Your task to perform on an android device: What is the capital of Spain? Image 0: 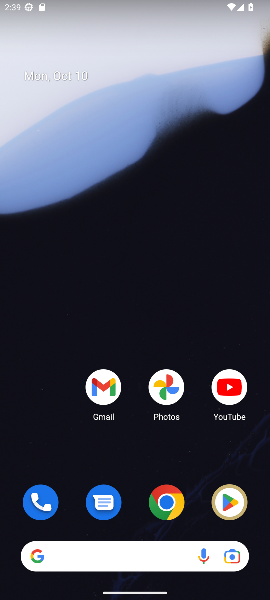
Step 0: click (167, 498)
Your task to perform on an android device: What is the capital of Spain? Image 1: 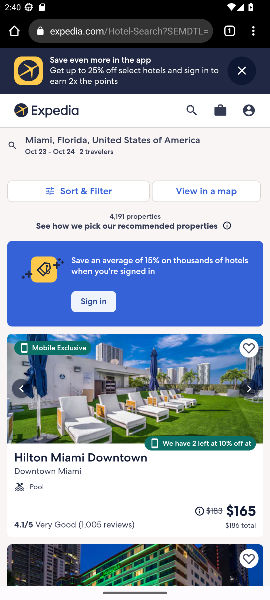
Step 1: click (117, 30)
Your task to perform on an android device: What is the capital of Spain? Image 2: 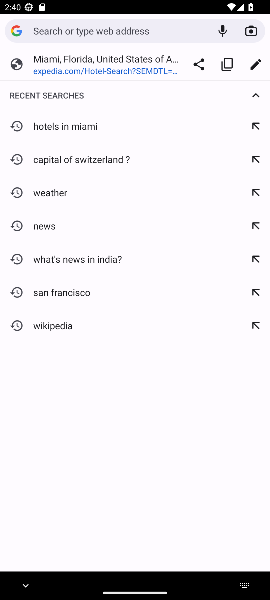
Step 2: type "capital of spain ?"
Your task to perform on an android device: What is the capital of Spain? Image 3: 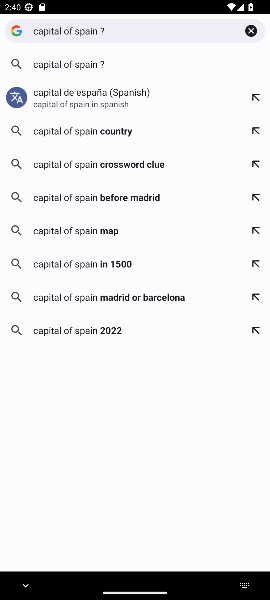
Step 3: click (87, 65)
Your task to perform on an android device: What is the capital of Spain? Image 4: 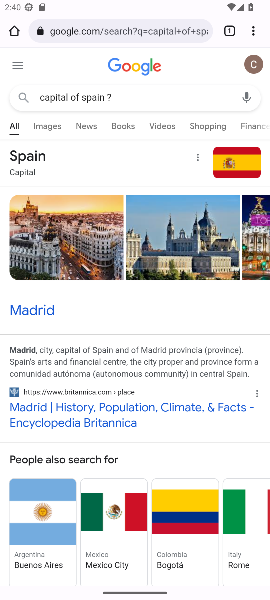
Step 4: task complete